Your task to perform on an android device: open chrome privacy settings Image 0: 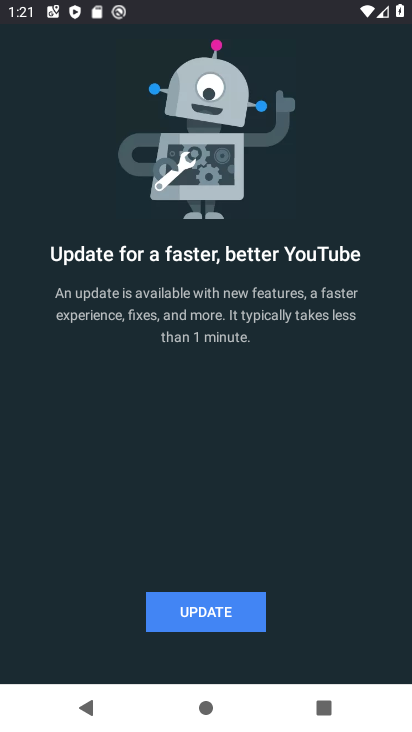
Step 0: press back button
Your task to perform on an android device: open chrome privacy settings Image 1: 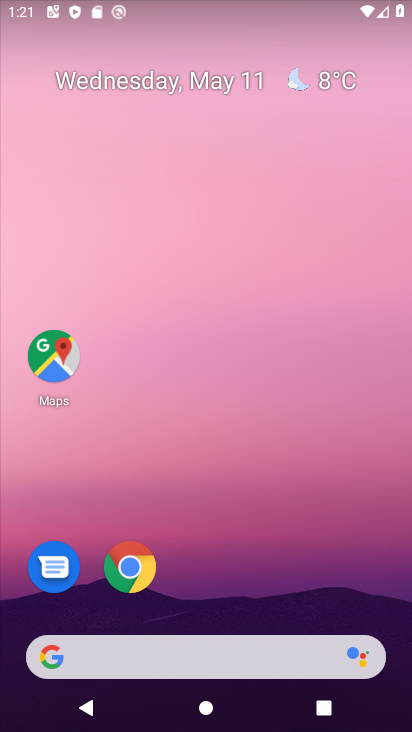
Step 1: click (126, 565)
Your task to perform on an android device: open chrome privacy settings Image 2: 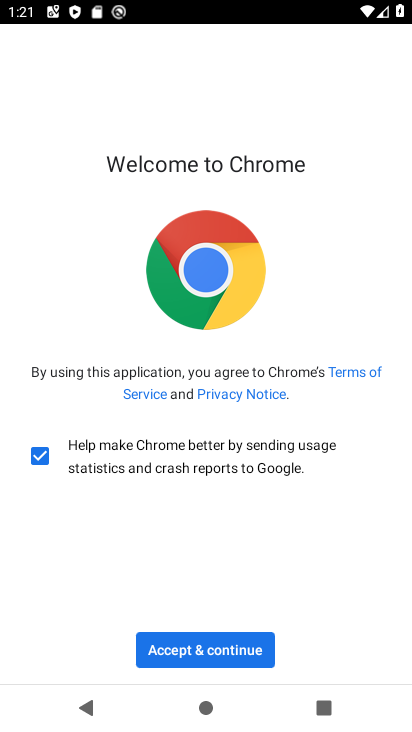
Step 2: click (215, 640)
Your task to perform on an android device: open chrome privacy settings Image 3: 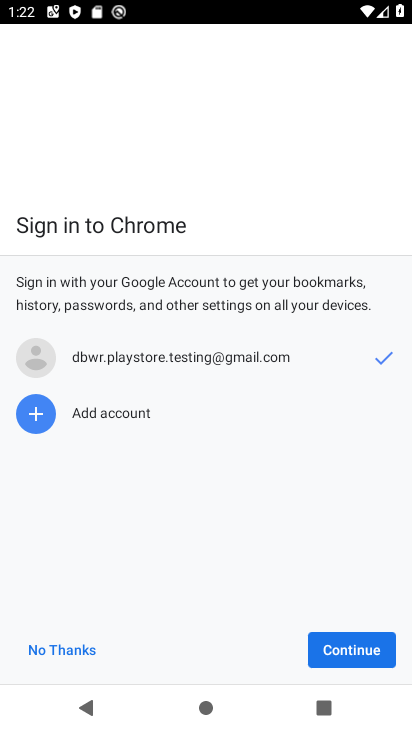
Step 3: click (377, 647)
Your task to perform on an android device: open chrome privacy settings Image 4: 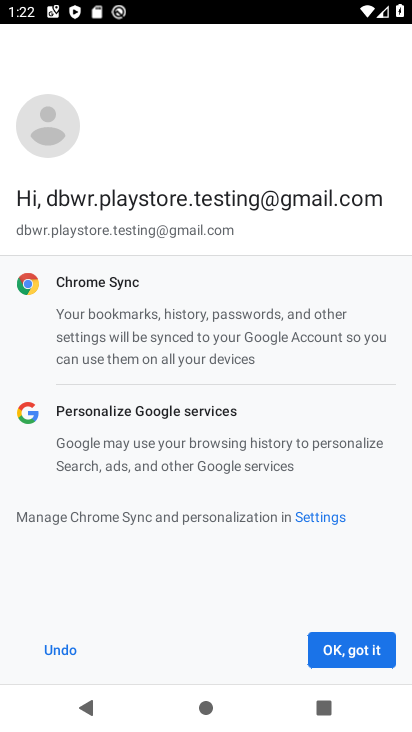
Step 4: click (345, 669)
Your task to perform on an android device: open chrome privacy settings Image 5: 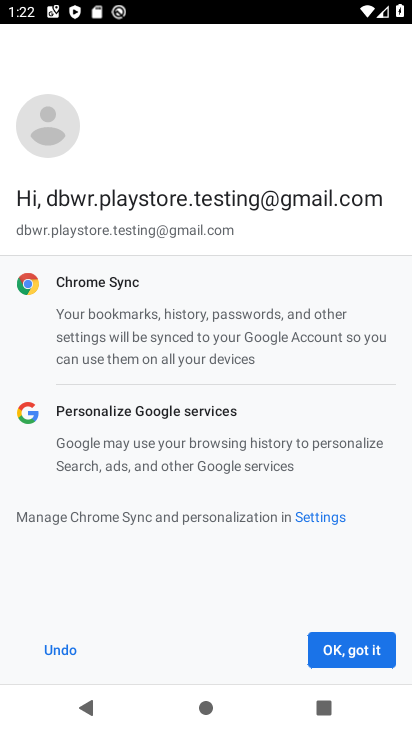
Step 5: click (359, 658)
Your task to perform on an android device: open chrome privacy settings Image 6: 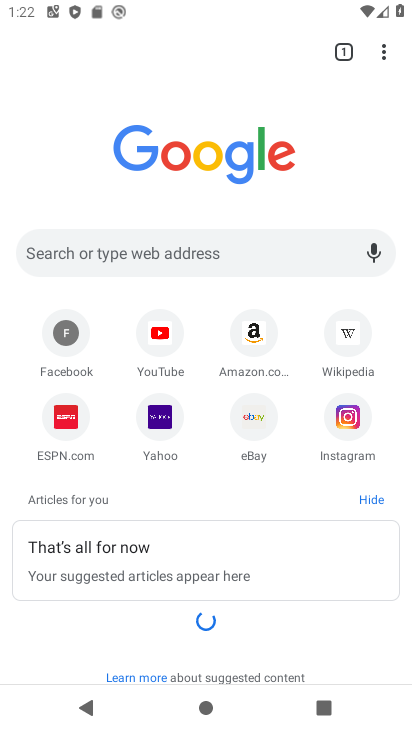
Step 6: click (381, 56)
Your task to perform on an android device: open chrome privacy settings Image 7: 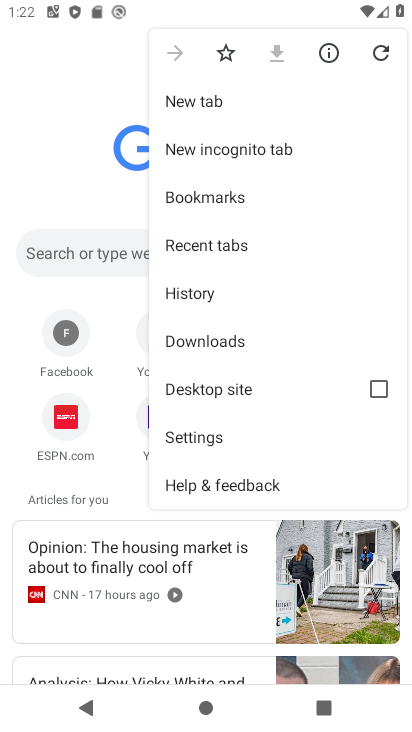
Step 7: click (242, 439)
Your task to perform on an android device: open chrome privacy settings Image 8: 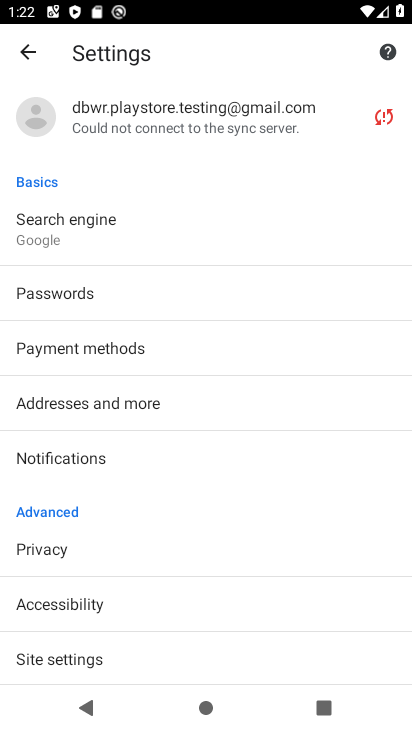
Step 8: click (96, 561)
Your task to perform on an android device: open chrome privacy settings Image 9: 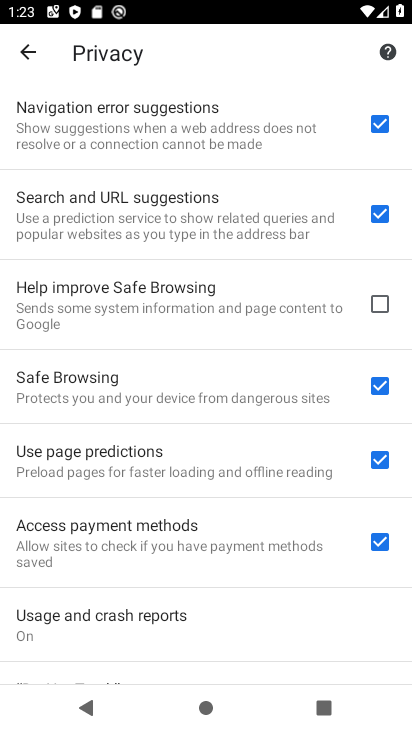
Step 9: task complete